Your task to perform on an android device: add a contact in the contacts app Image 0: 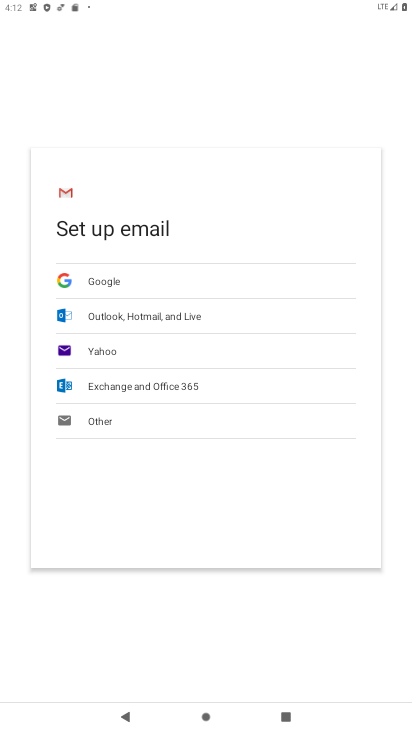
Step 0: press home button
Your task to perform on an android device: add a contact in the contacts app Image 1: 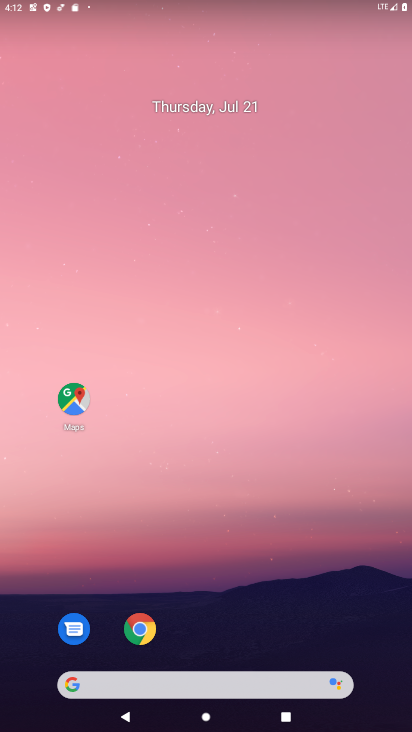
Step 1: drag from (268, 633) to (226, 208)
Your task to perform on an android device: add a contact in the contacts app Image 2: 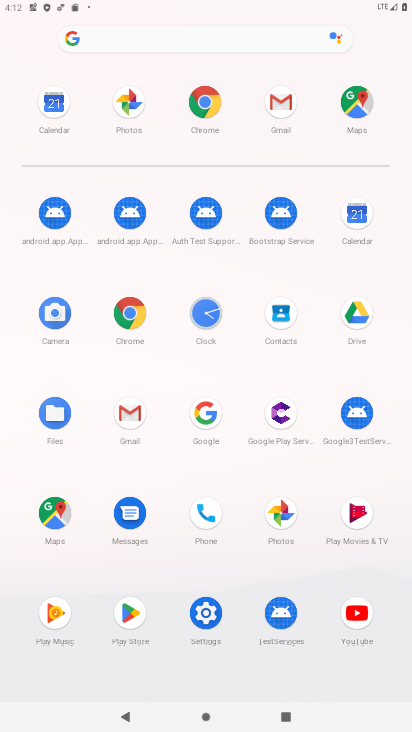
Step 2: click (272, 329)
Your task to perform on an android device: add a contact in the contacts app Image 3: 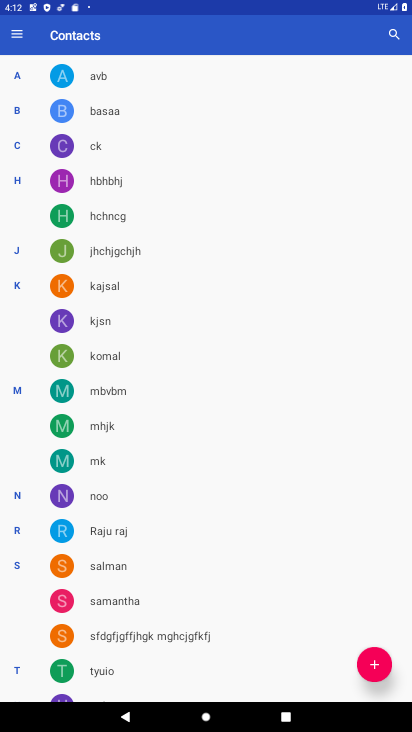
Step 3: click (373, 673)
Your task to perform on an android device: add a contact in the contacts app Image 4: 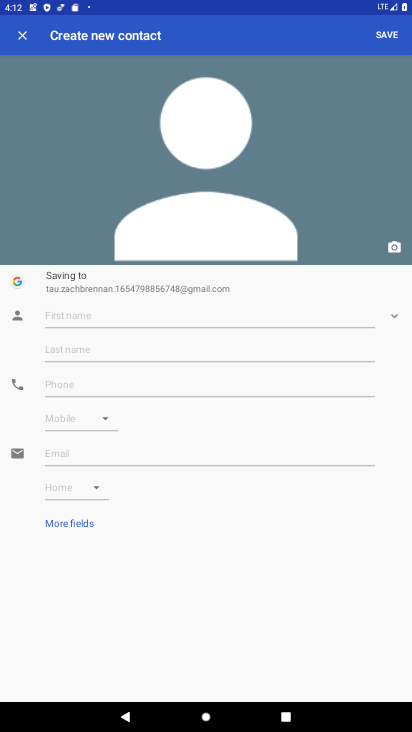
Step 4: click (320, 317)
Your task to perform on an android device: add a contact in the contacts app Image 5: 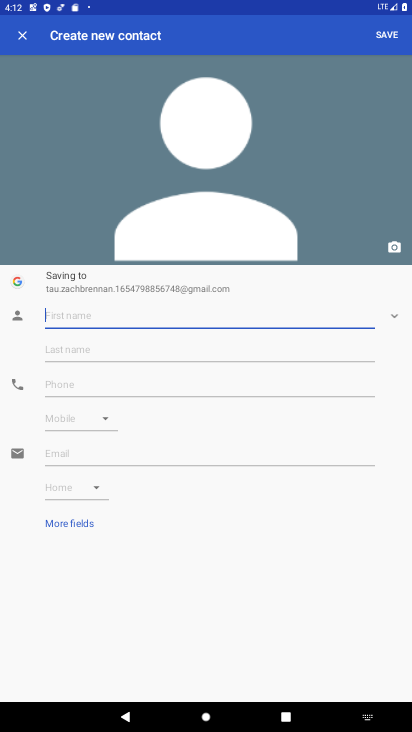
Step 5: type "vgvjhjh"
Your task to perform on an android device: add a contact in the contacts app Image 6: 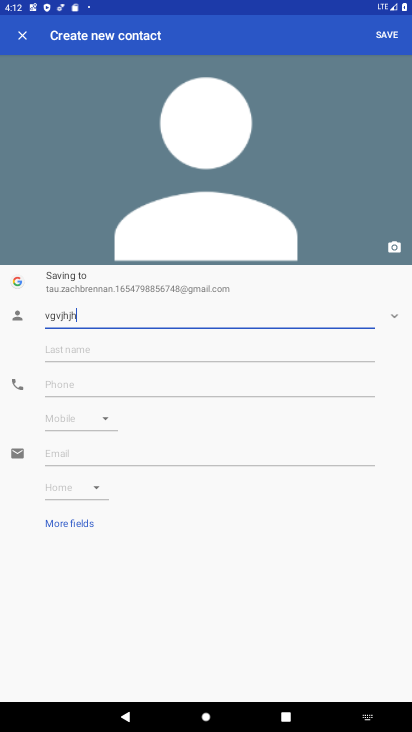
Step 6: click (145, 386)
Your task to perform on an android device: add a contact in the contacts app Image 7: 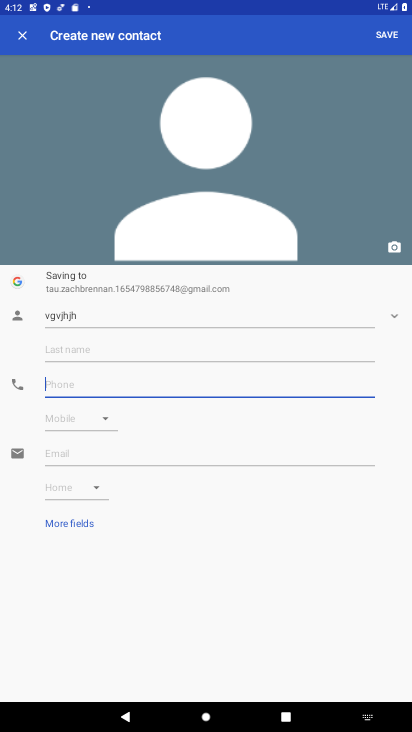
Step 7: type "56565865"
Your task to perform on an android device: add a contact in the contacts app Image 8: 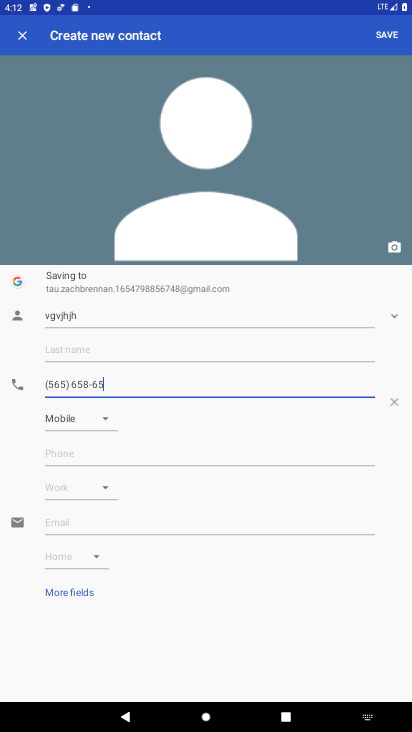
Step 8: click (388, 33)
Your task to perform on an android device: add a contact in the contacts app Image 9: 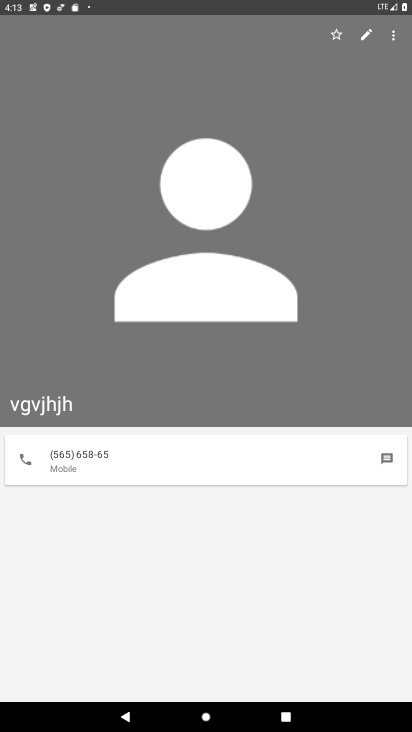
Step 9: task complete